Your task to perform on an android device: Search for hotels in New York Image 0: 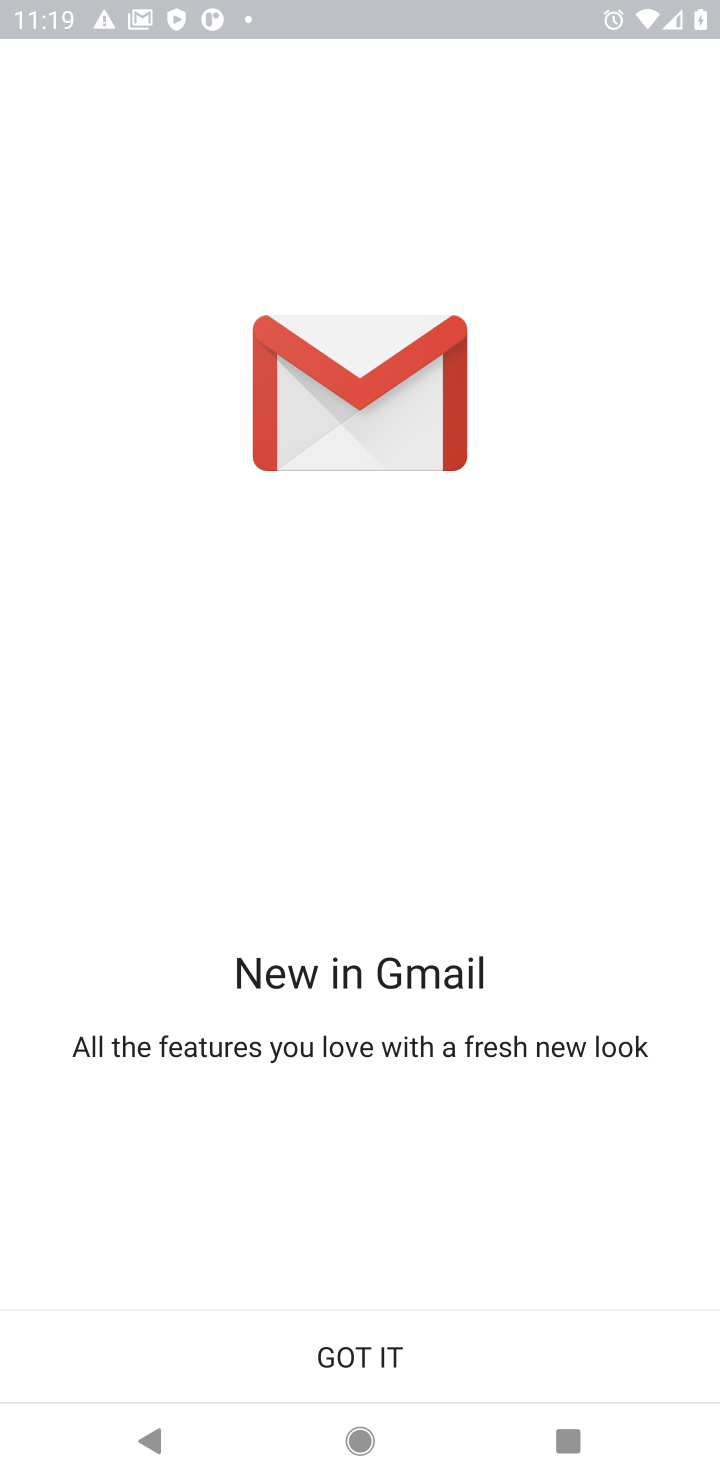
Step 0: click (362, 1341)
Your task to perform on an android device: Search for hotels in New York Image 1: 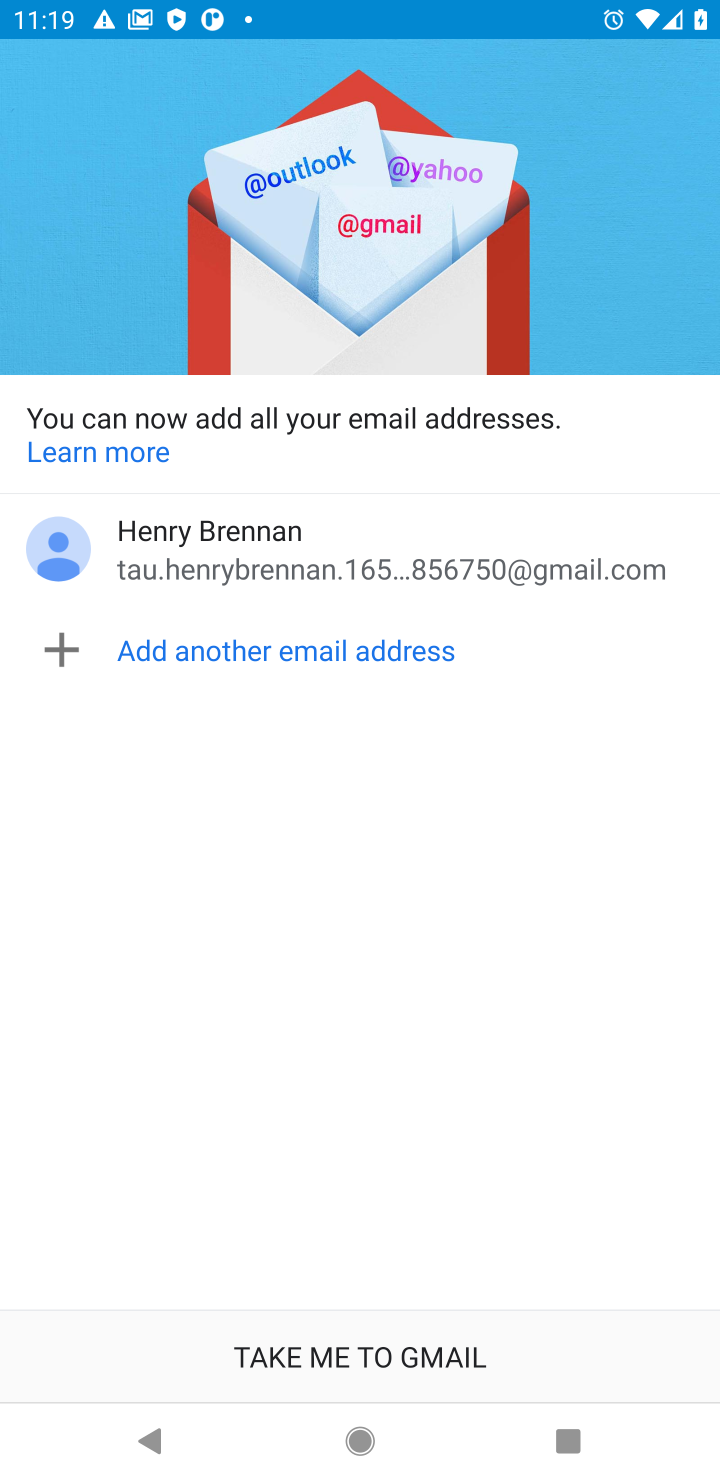
Step 1: press home button
Your task to perform on an android device: Search for hotels in New York Image 2: 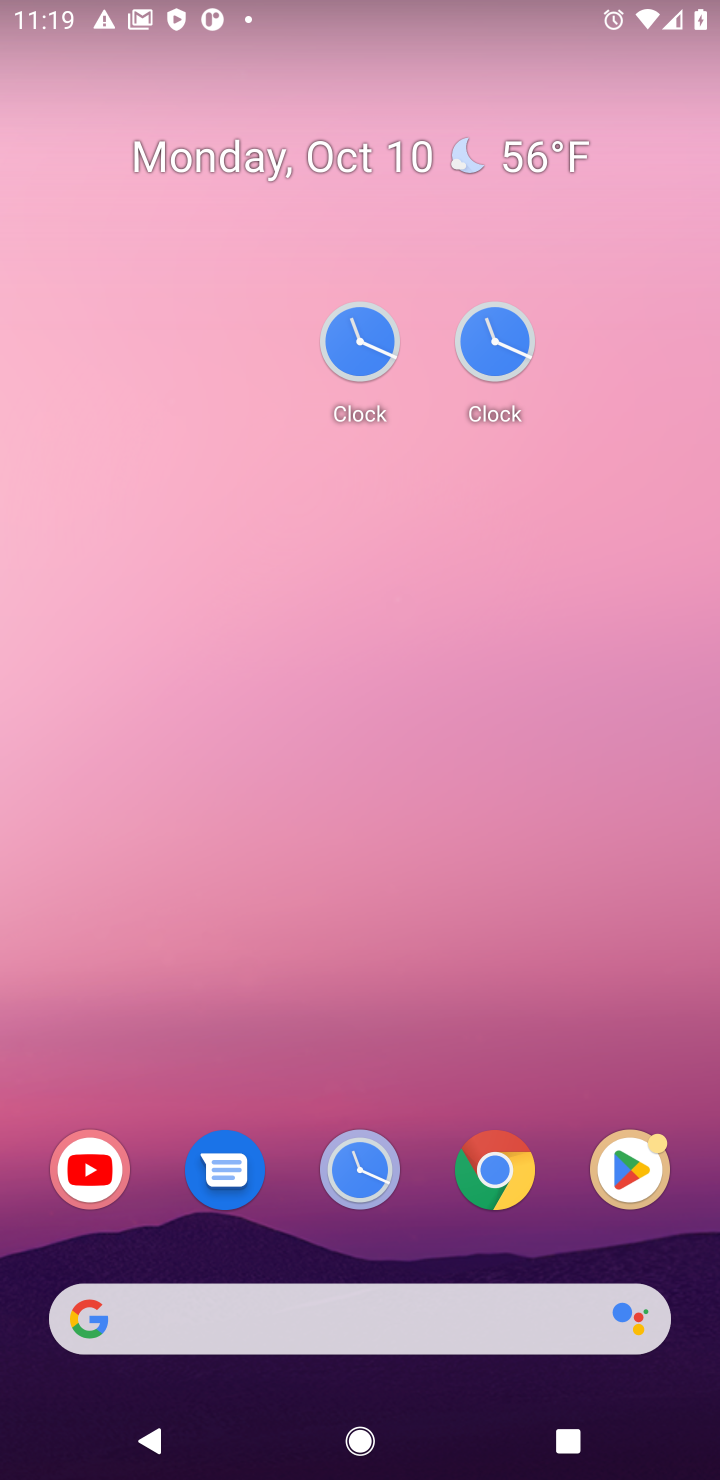
Step 2: click (513, 1184)
Your task to perform on an android device: Search for hotels in New York Image 3: 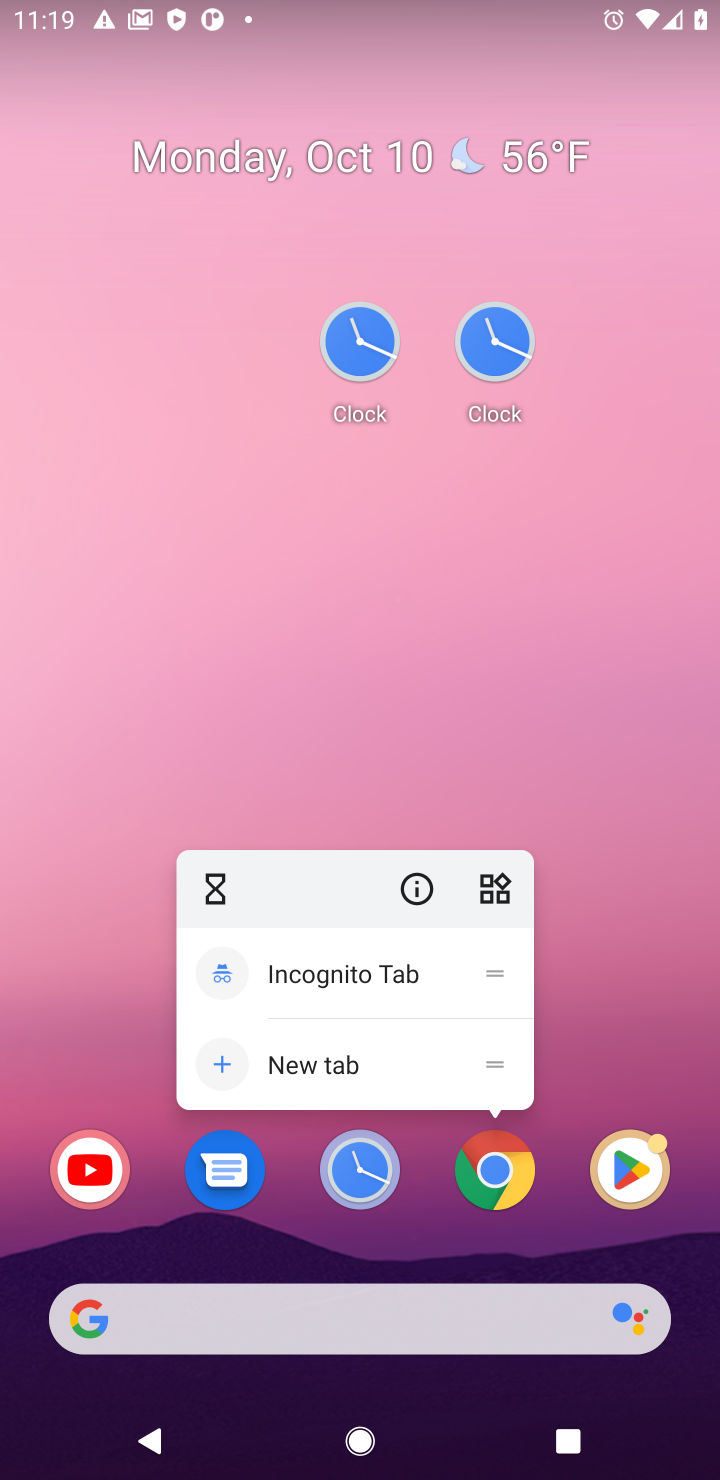
Step 3: click (499, 1178)
Your task to perform on an android device: Search for hotels in New York Image 4: 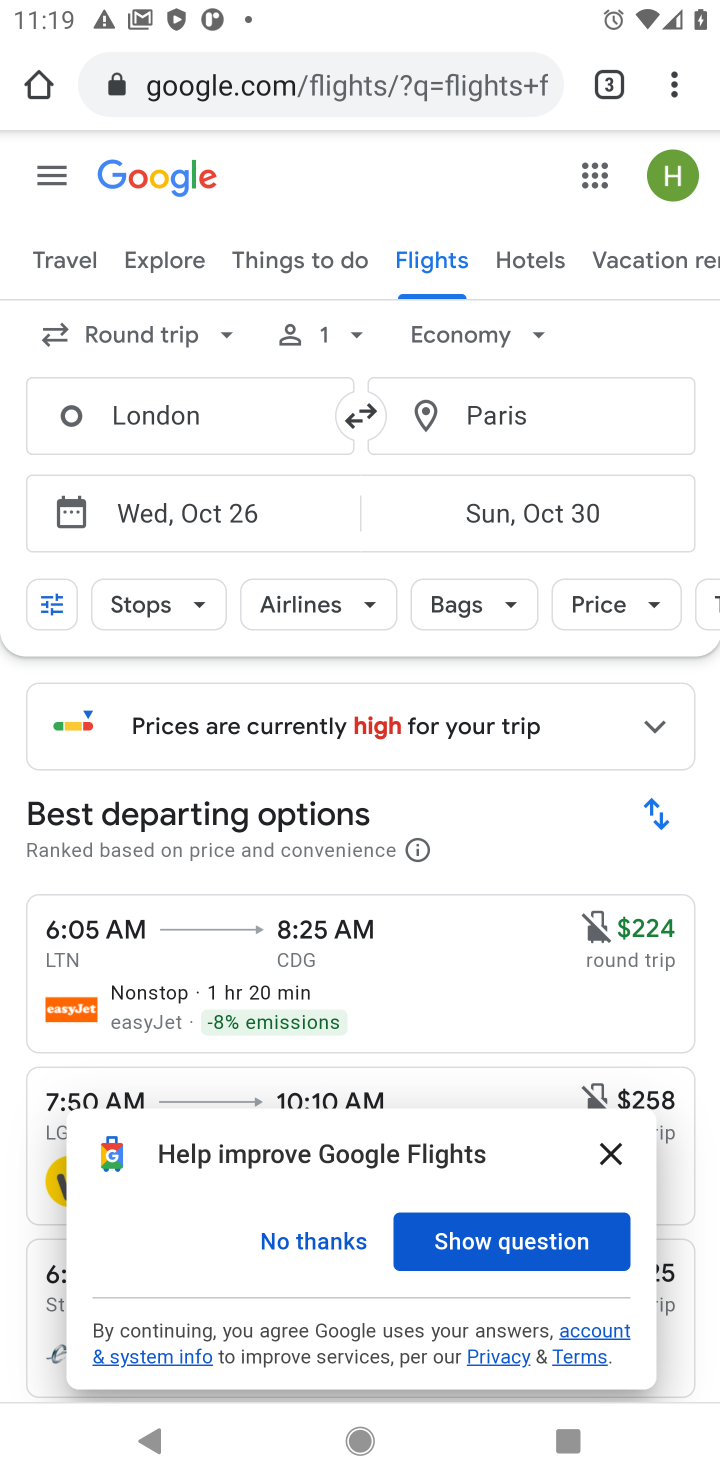
Step 4: click (469, 82)
Your task to perform on an android device: Search for hotels in New York Image 5: 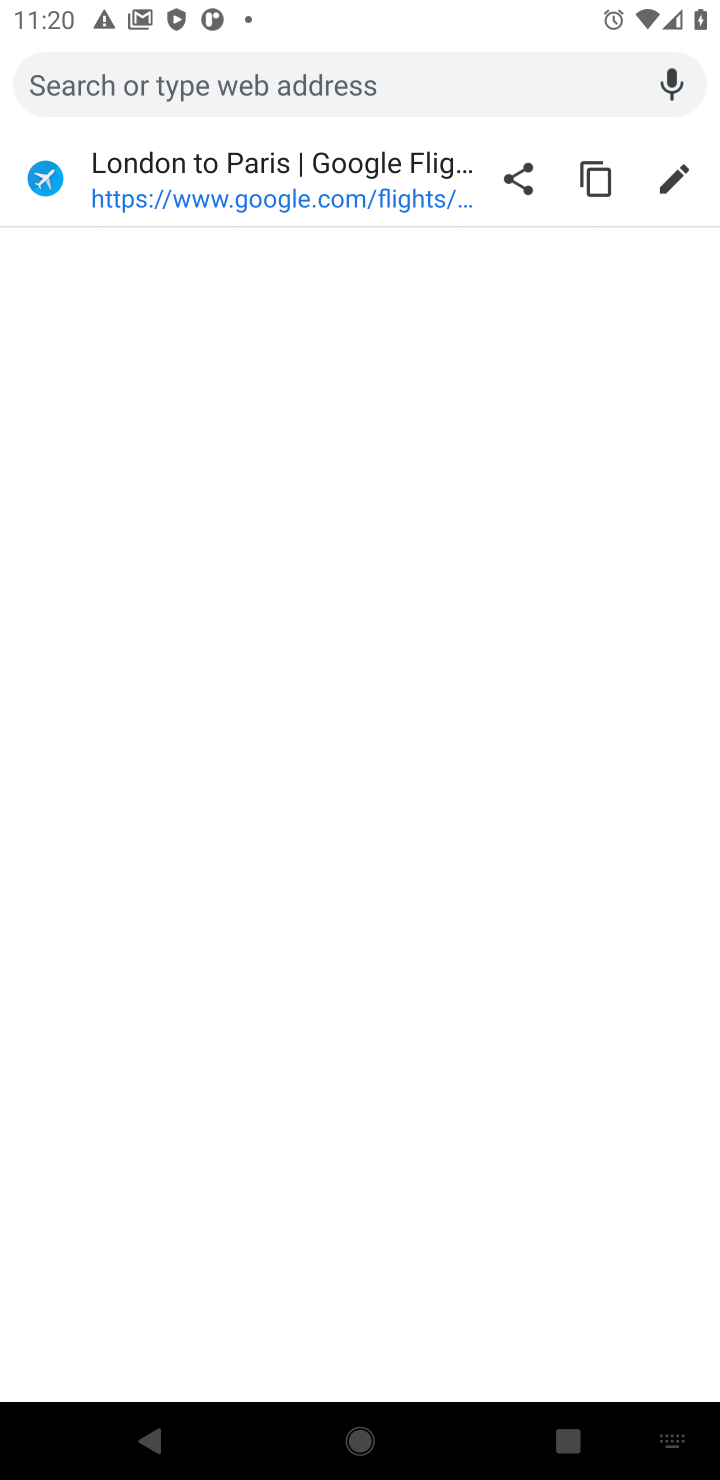
Step 5: type "hotels in New York"
Your task to perform on an android device: Search for hotels in New York Image 6: 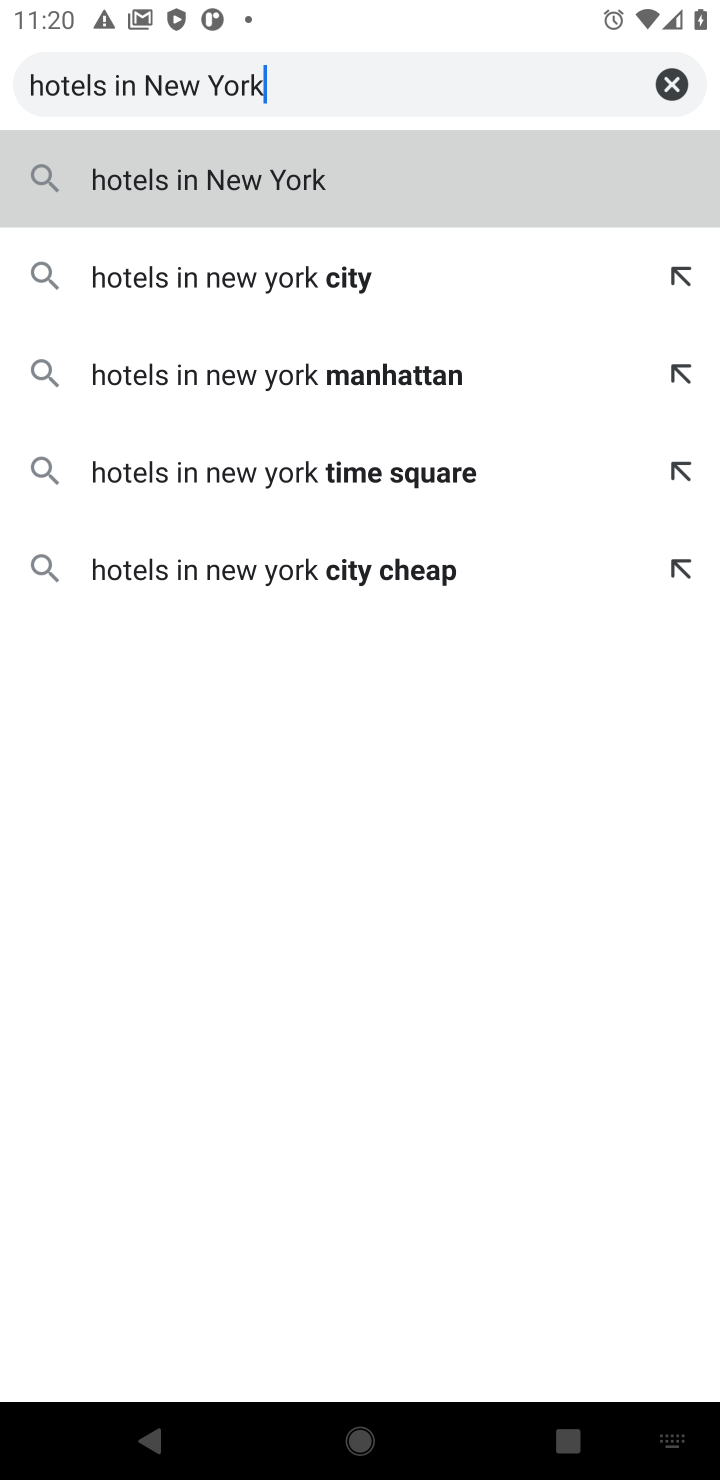
Step 6: click (418, 178)
Your task to perform on an android device: Search for hotels in New York Image 7: 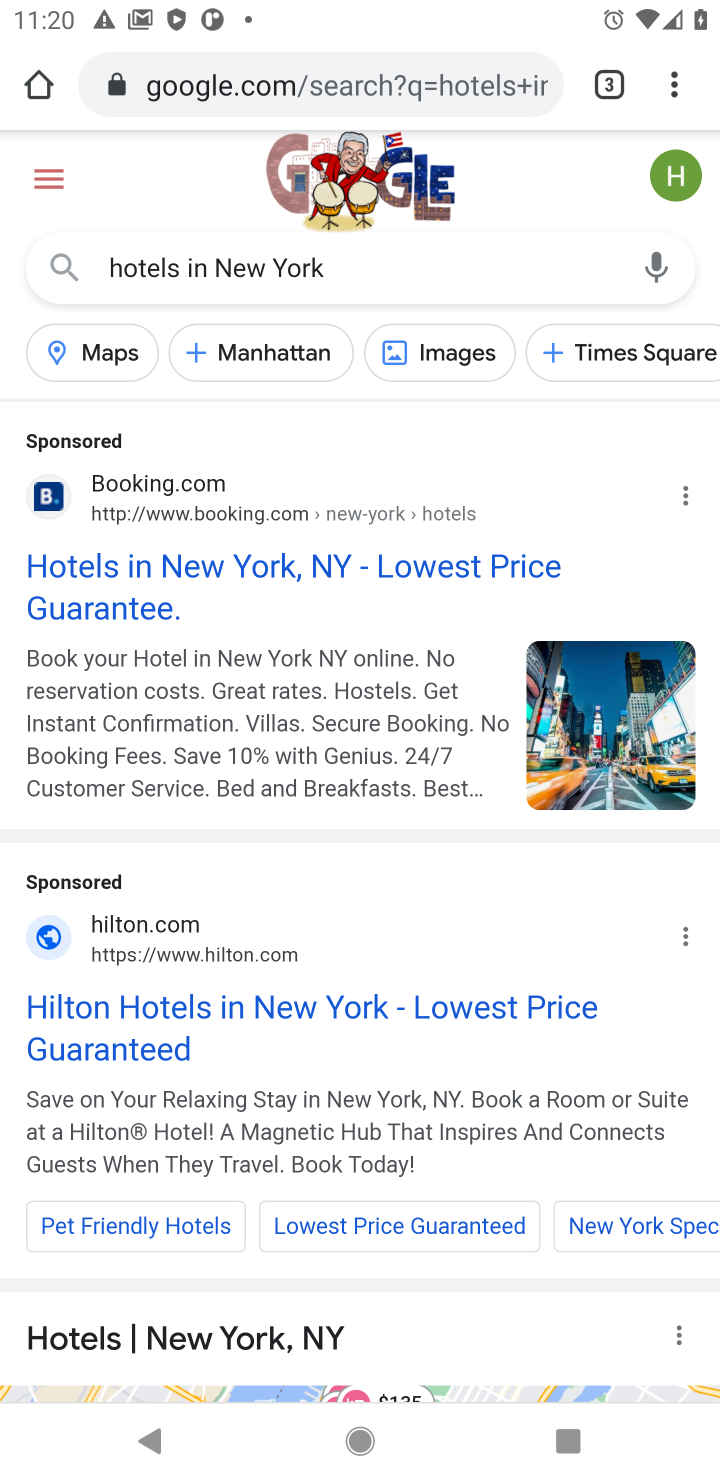
Step 7: task complete